Your task to perform on an android device: open the mobile data screen to see how much data has been used Image 0: 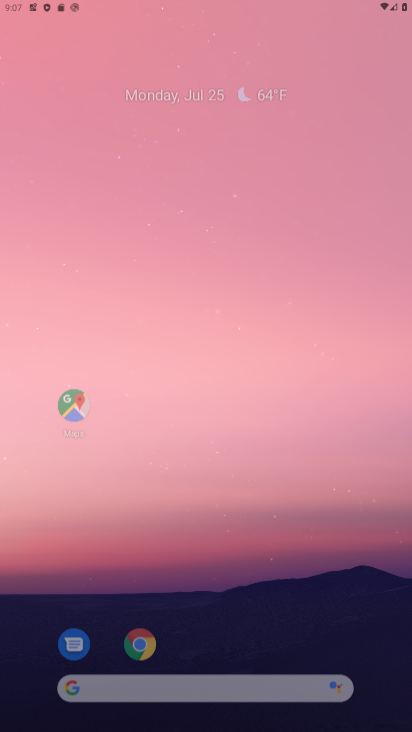
Step 0: drag from (374, 501) to (391, 109)
Your task to perform on an android device: open the mobile data screen to see how much data has been used Image 1: 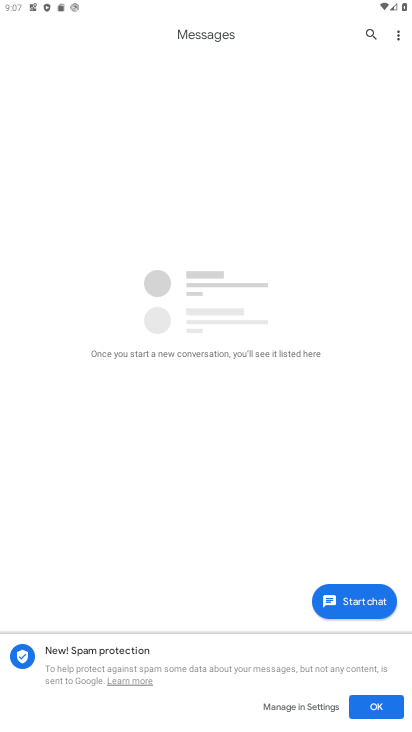
Step 1: press home button
Your task to perform on an android device: open the mobile data screen to see how much data has been used Image 2: 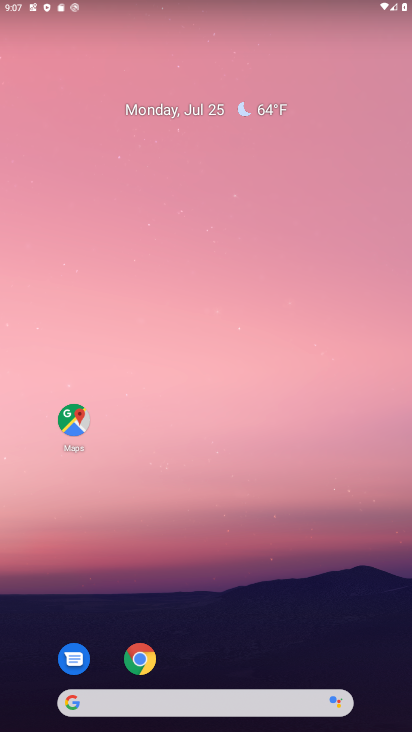
Step 2: drag from (340, 615) to (339, 117)
Your task to perform on an android device: open the mobile data screen to see how much data has been used Image 3: 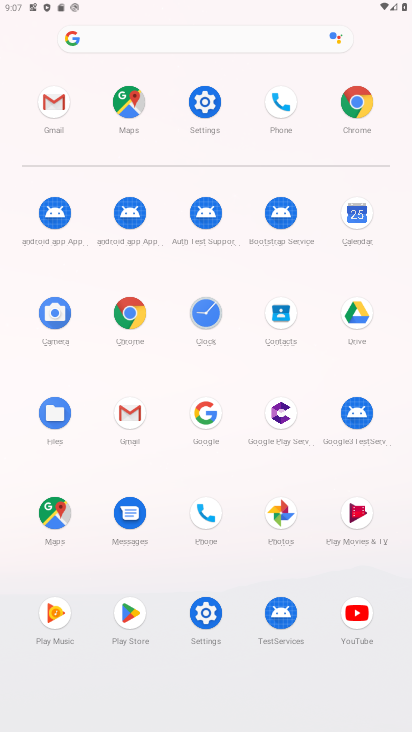
Step 3: click (205, 113)
Your task to perform on an android device: open the mobile data screen to see how much data has been used Image 4: 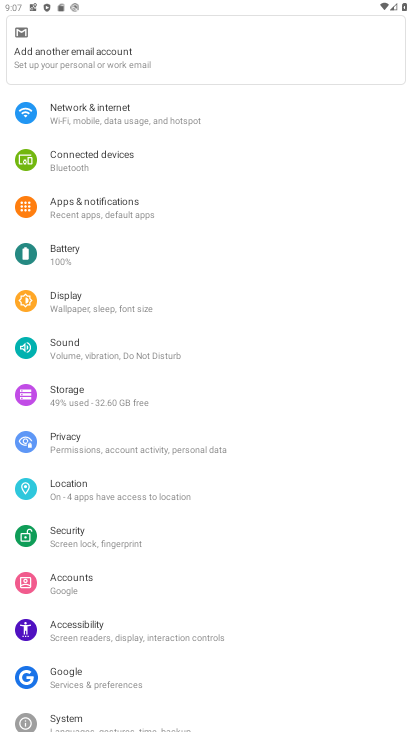
Step 4: drag from (326, 272) to (330, 348)
Your task to perform on an android device: open the mobile data screen to see how much data has been used Image 5: 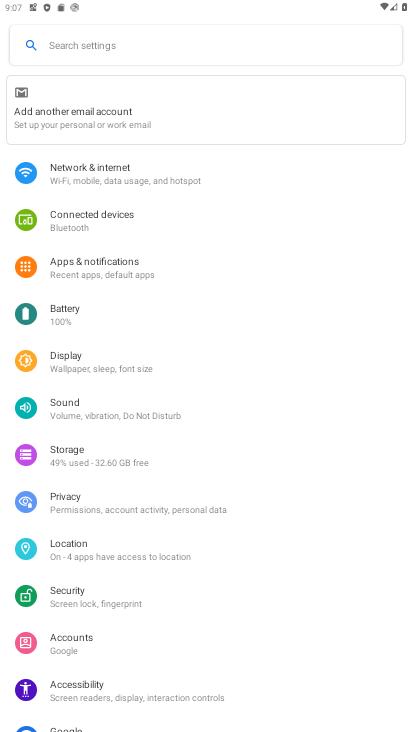
Step 5: drag from (330, 255) to (336, 370)
Your task to perform on an android device: open the mobile data screen to see how much data has been used Image 6: 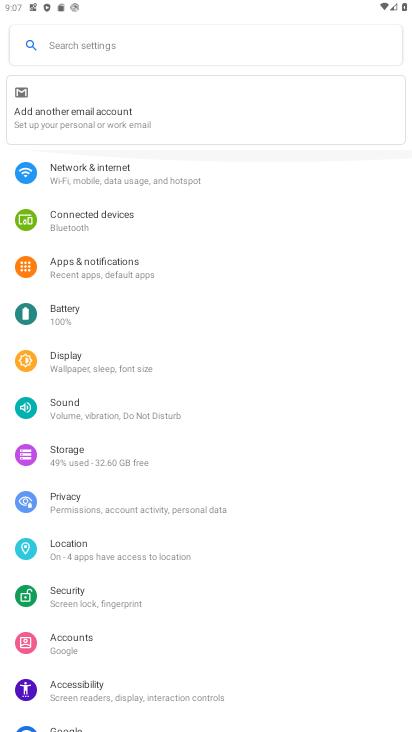
Step 6: drag from (319, 428) to (332, 317)
Your task to perform on an android device: open the mobile data screen to see how much data has been used Image 7: 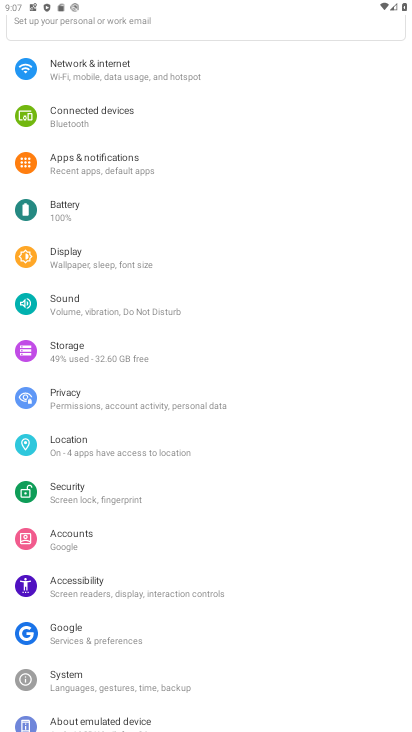
Step 7: drag from (320, 493) to (329, 368)
Your task to perform on an android device: open the mobile data screen to see how much data has been used Image 8: 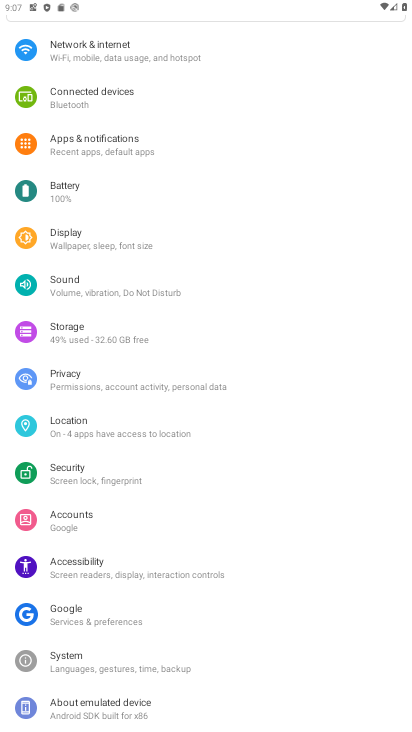
Step 8: drag from (326, 541) to (335, 431)
Your task to perform on an android device: open the mobile data screen to see how much data has been used Image 9: 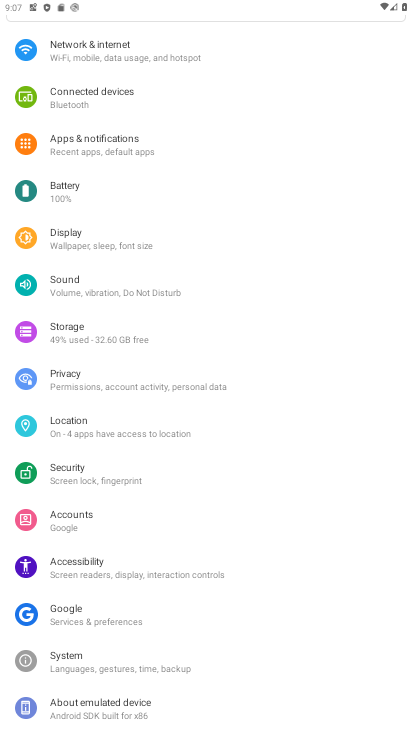
Step 9: drag from (309, 281) to (319, 409)
Your task to perform on an android device: open the mobile data screen to see how much data has been used Image 10: 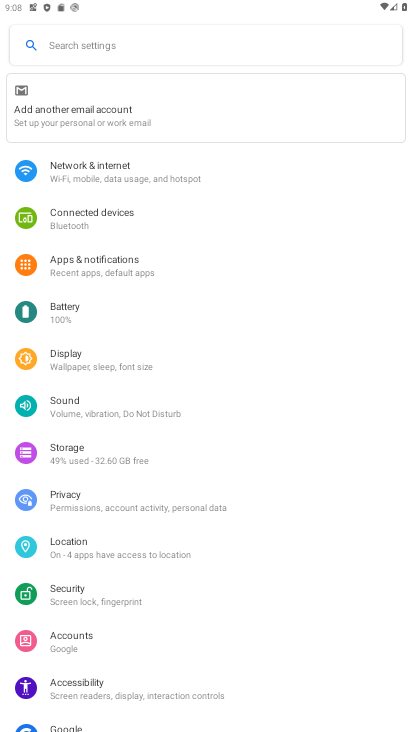
Step 10: drag from (316, 248) to (326, 423)
Your task to perform on an android device: open the mobile data screen to see how much data has been used Image 11: 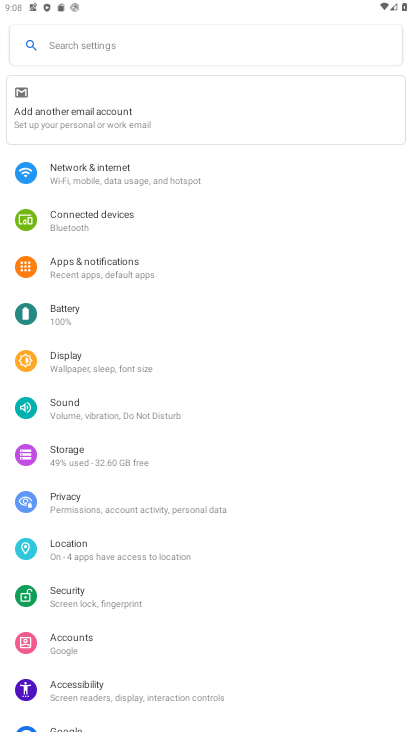
Step 11: click (208, 174)
Your task to perform on an android device: open the mobile data screen to see how much data has been used Image 12: 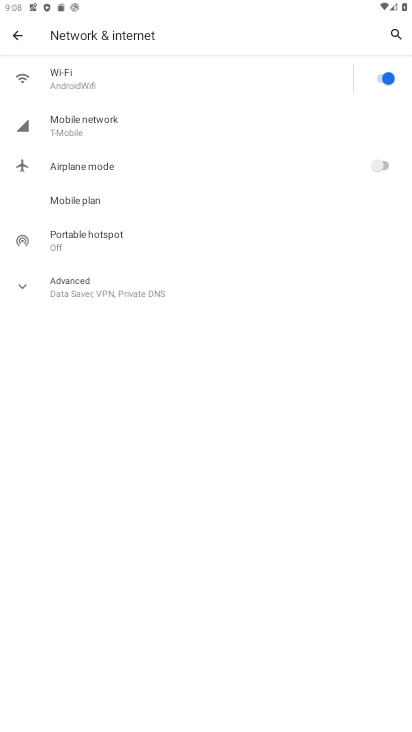
Step 12: click (123, 136)
Your task to perform on an android device: open the mobile data screen to see how much data has been used Image 13: 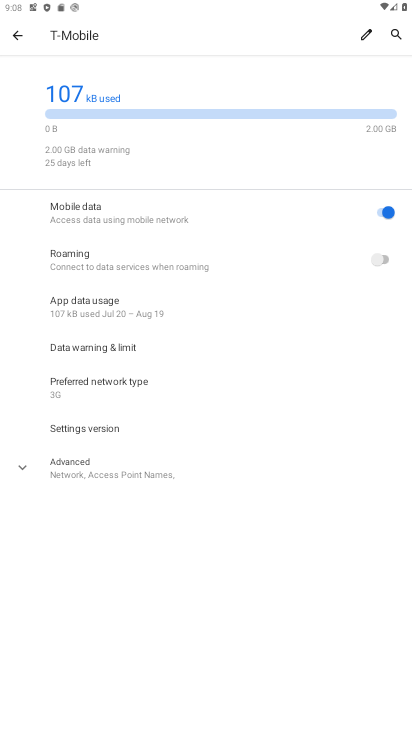
Step 13: click (172, 309)
Your task to perform on an android device: open the mobile data screen to see how much data has been used Image 14: 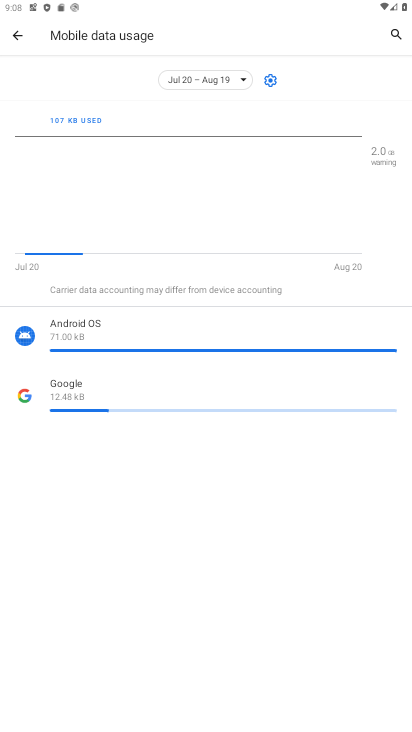
Step 14: task complete